Your task to perform on an android device: Open calendar and show me the second week of next month Image 0: 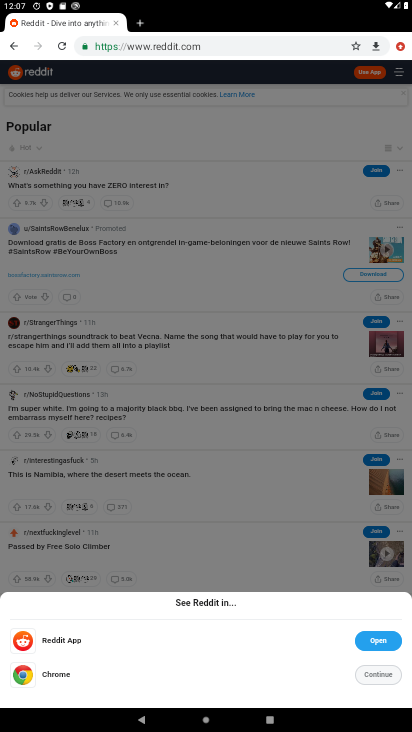
Step 0: press back button
Your task to perform on an android device: Open calendar and show me the second week of next month Image 1: 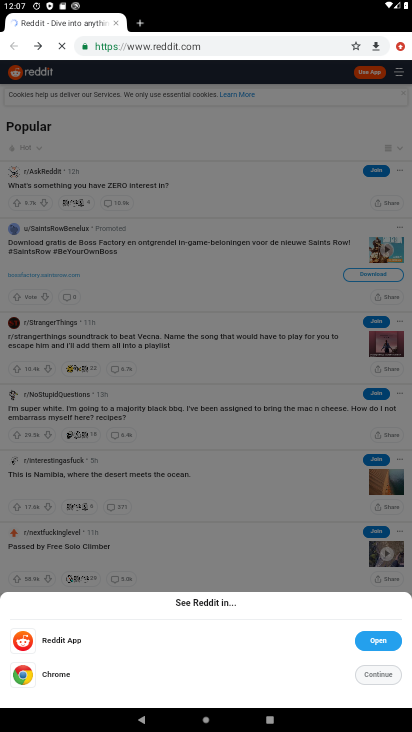
Step 1: press back button
Your task to perform on an android device: Open calendar and show me the second week of next month Image 2: 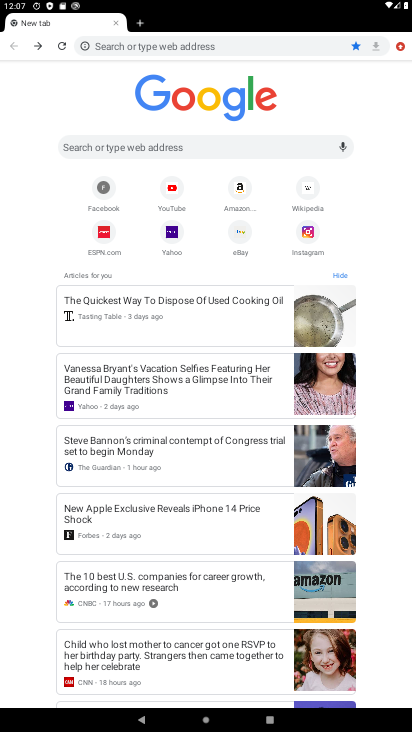
Step 2: press home button
Your task to perform on an android device: Open calendar and show me the second week of next month Image 3: 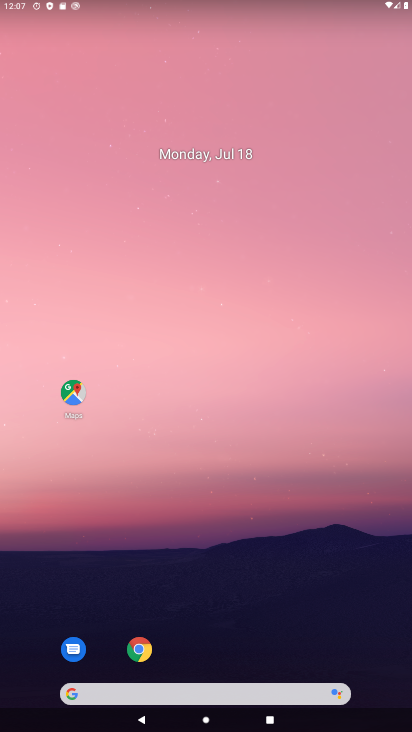
Step 3: drag from (267, 669) to (239, 195)
Your task to perform on an android device: Open calendar and show me the second week of next month Image 4: 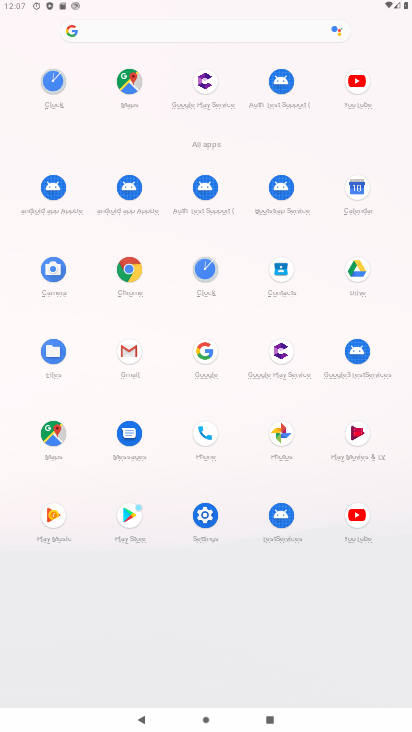
Step 4: click (361, 191)
Your task to perform on an android device: Open calendar and show me the second week of next month Image 5: 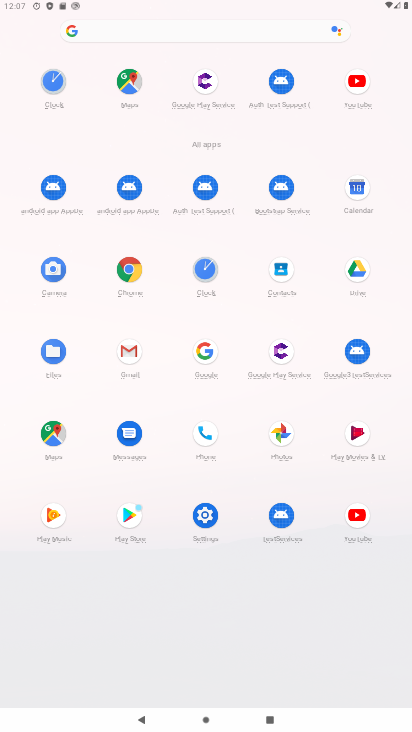
Step 5: click (365, 179)
Your task to perform on an android device: Open calendar and show me the second week of next month Image 6: 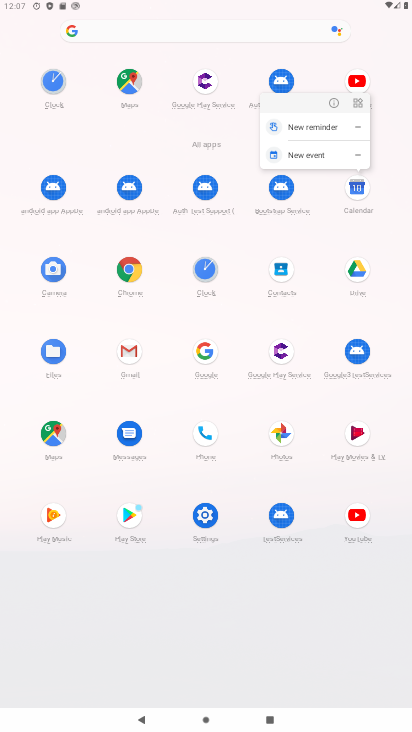
Step 6: click (362, 192)
Your task to perform on an android device: Open calendar and show me the second week of next month Image 7: 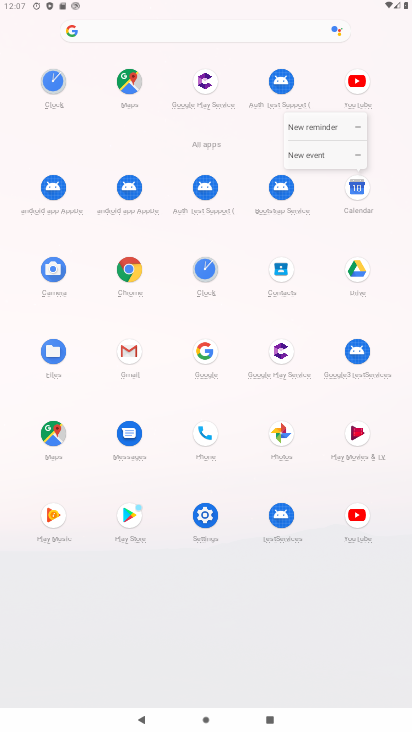
Step 7: click (363, 192)
Your task to perform on an android device: Open calendar and show me the second week of next month Image 8: 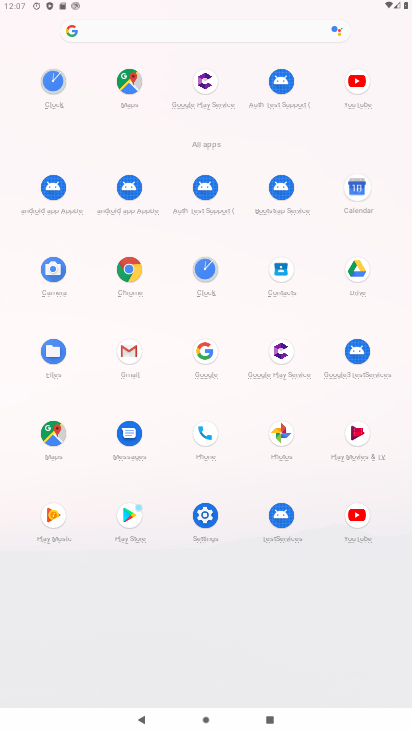
Step 8: click (363, 194)
Your task to perform on an android device: Open calendar and show me the second week of next month Image 9: 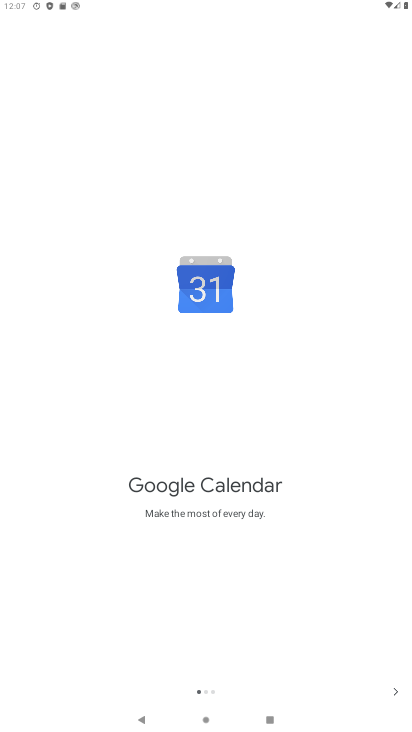
Step 9: click (395, 689)
Your task to perform on an android device: Open calendar and show me the second week of next month Image 10: 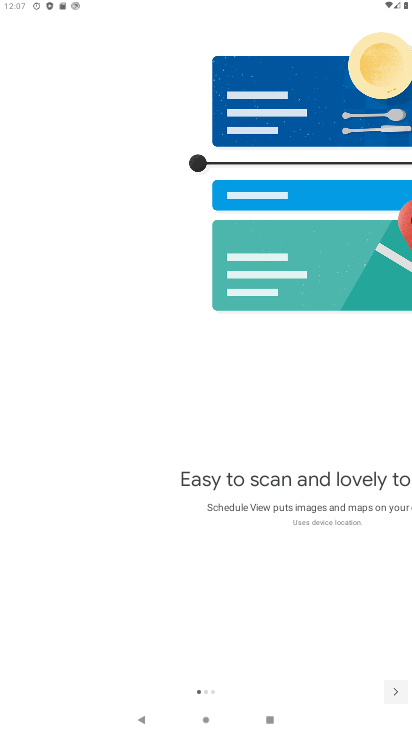
Step 10: click (398, 690)
Your task to perform on an android device: Open calendar and show me the second week of next month Image 11: 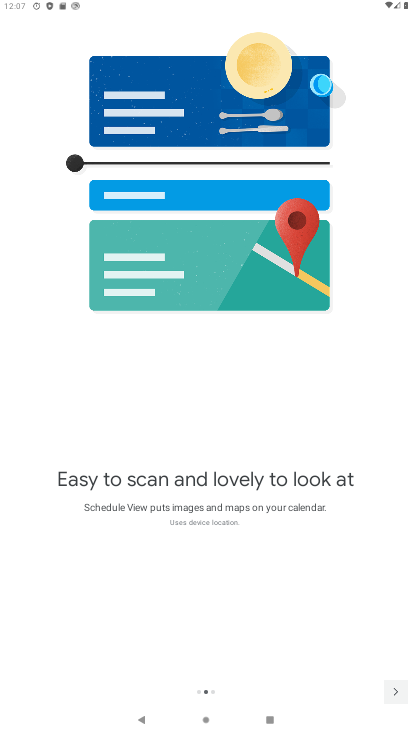
Step 11: click (397, 693)
Your task to perform on an android device: Open calendar and show me the second week of next month Image 12: 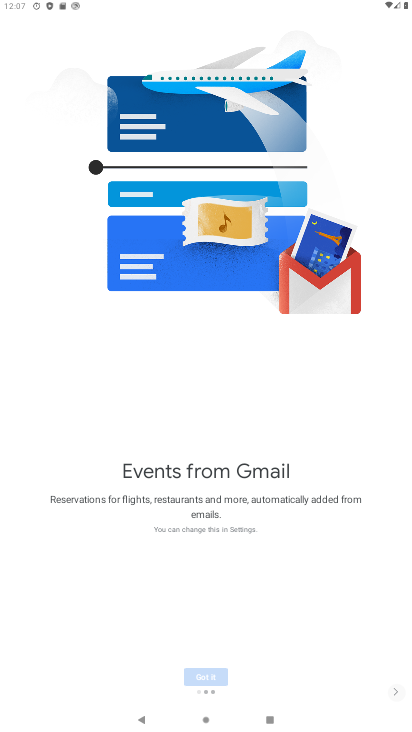
Step 12: click (395, 694)
Your task to perform on an android device: Open calendar and show me the second week of next month Image 13: 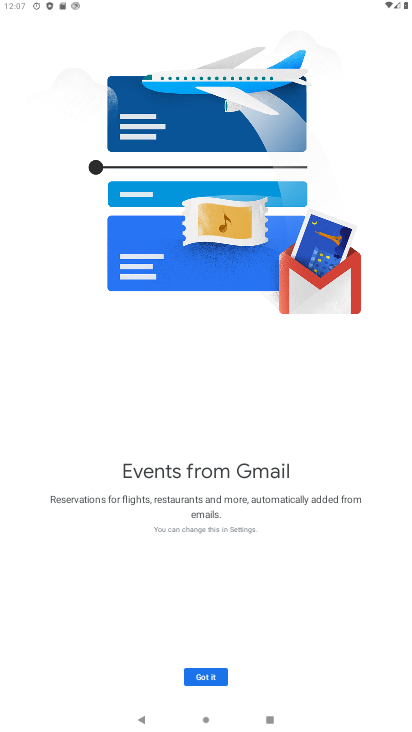
Step 13: click (209, 673)
Your task to perform on an android device: Open calendar and show me the second week of next month Image 14: 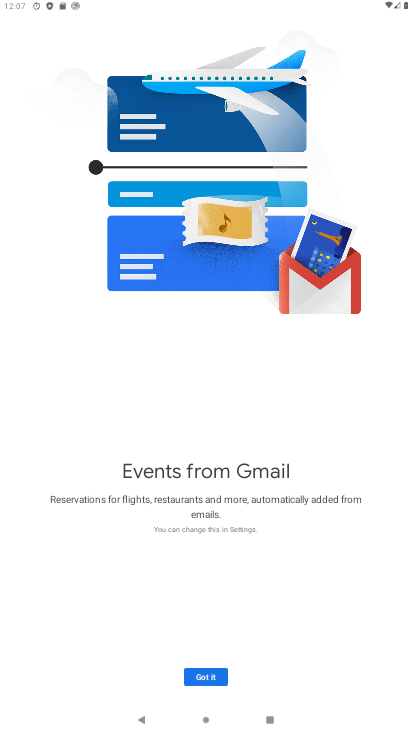
Step 14: click (217, 681)
Your task to perform on an android device: Open calendar and show me the second week of next month Image 15: 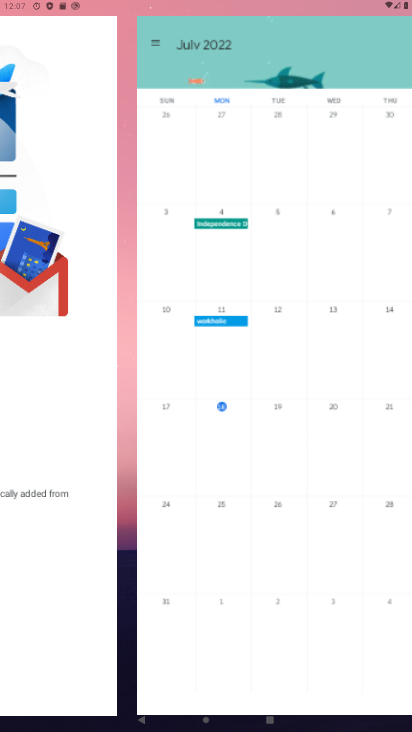
Step 15: click (218, 682)
Your task to perform on an android device: Open calendar and show me the second week of next month Image 16: 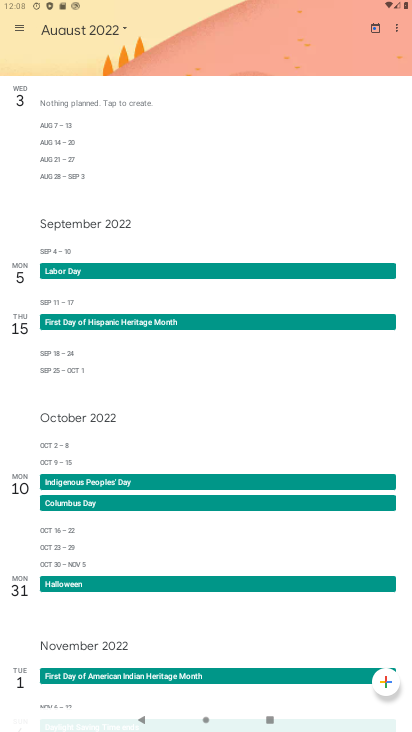
Step 16: click (121, 26)
Your task to perform on an android device: Open calendar and show me the second week of next month Image 17: 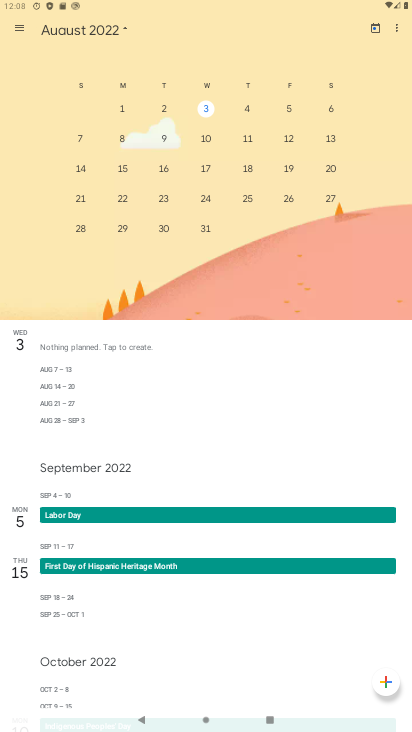
Step 17: click (197, 138)
Your task to perform on an android device: Open calendar and show me the second week of next month Image 18: 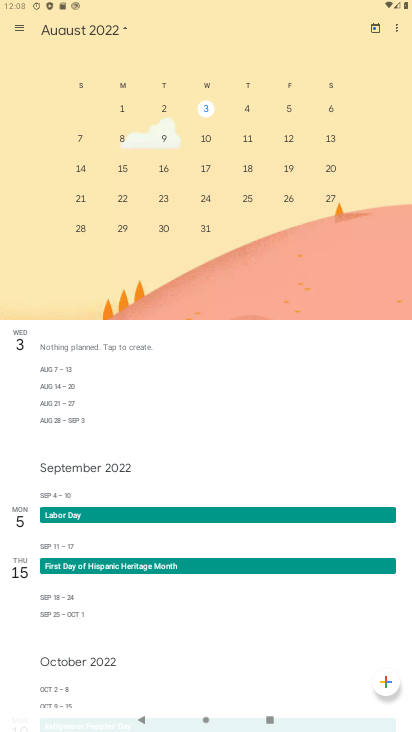
Step 18: task complete